Your task to perform on an android device: Check the news Image 0: 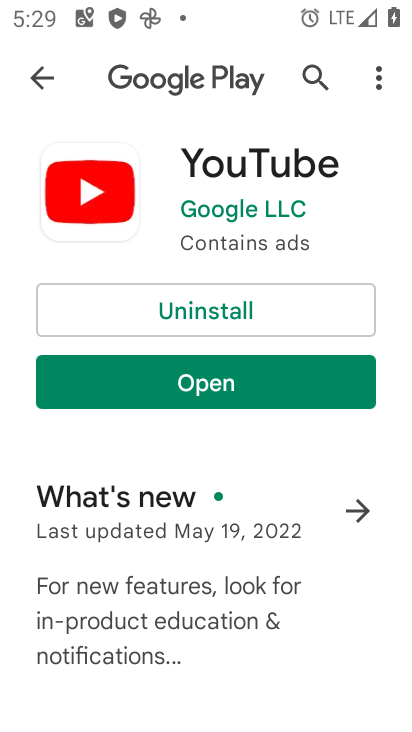
Step 0: press home button
Your task to perform on an android device: Check the news Image 1: 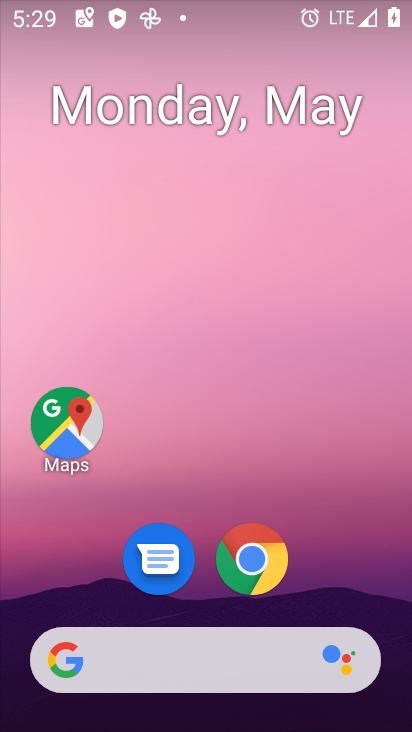
Step 1: drag from (273, 650) to (295, 183)
Your task to perform on an android device: Check the news Image 2: 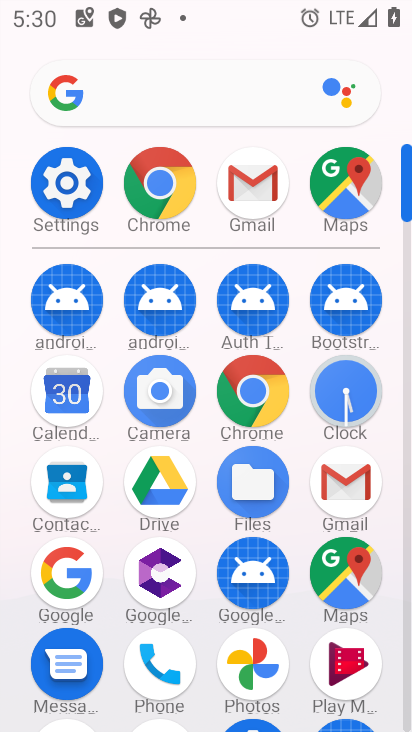
Step 2: click (242, 387)
Your task to perform on an android device: Check the news Image 3: 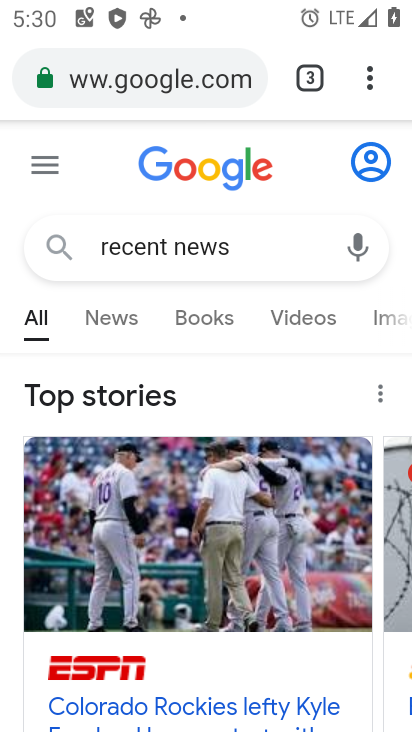
Step 3: task complete